Your task to perform on an android device: change the upload size in google photos Image 0: 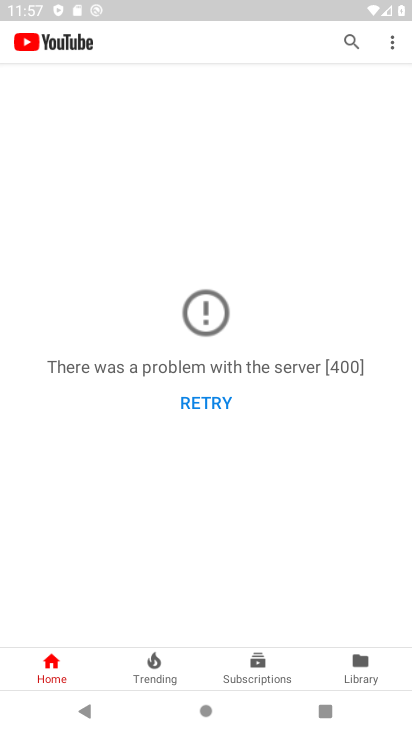
Step 0: press home button
Your task to perform on an android device: change the upload size in google photos Image 1: 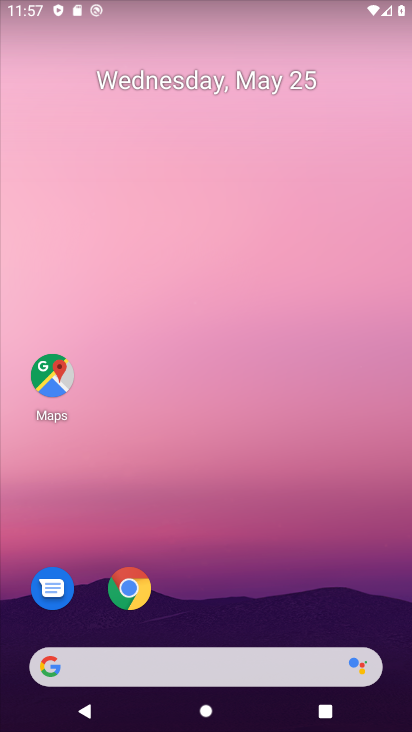
Step 1: drag from (142, 619) to (286, 81)
Your task to perform on an android device: change the upload size in google photos Image 2: 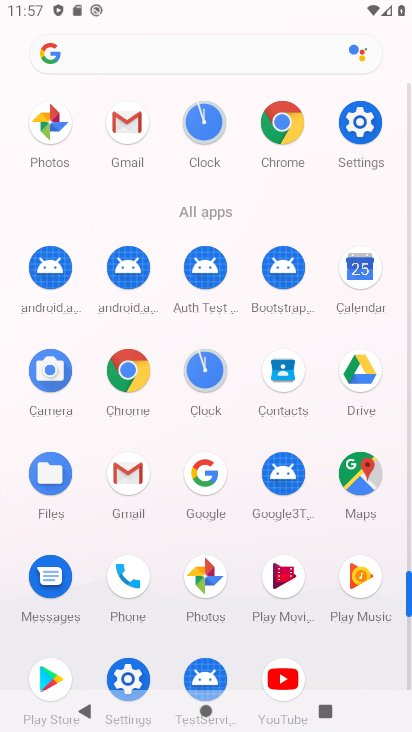
Step 2: click (199, 572)
Your task to perform on an android device: change the upload size in google photos Image 3: 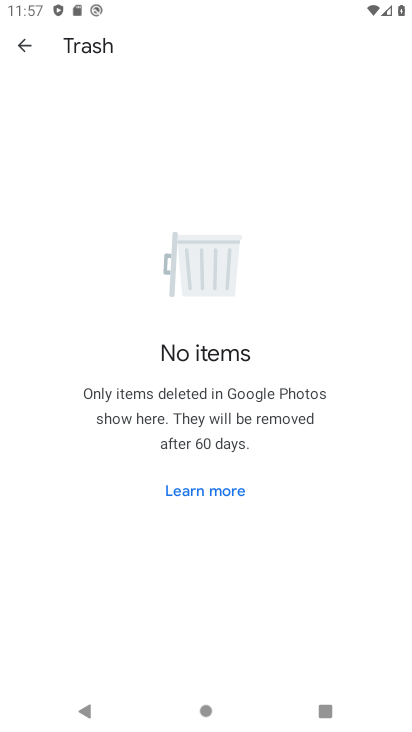
Step 3: click (30, 56)
Your task to perform on an android device: change the upload size in google photos Image 4: 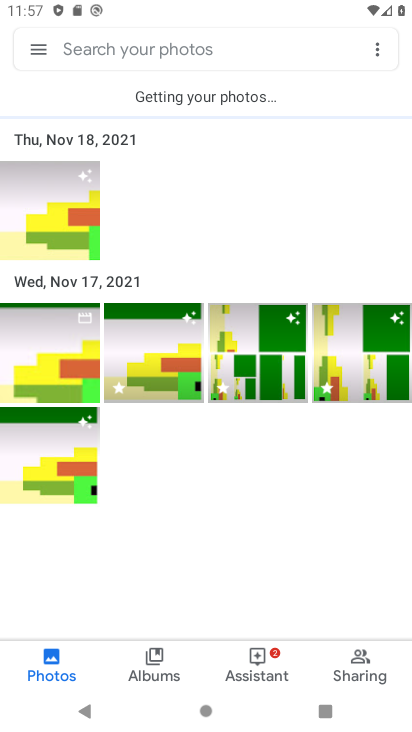
Step 4: click (39, 55)
Your task to perform on an android device: change the upload size in google photos Image 5: 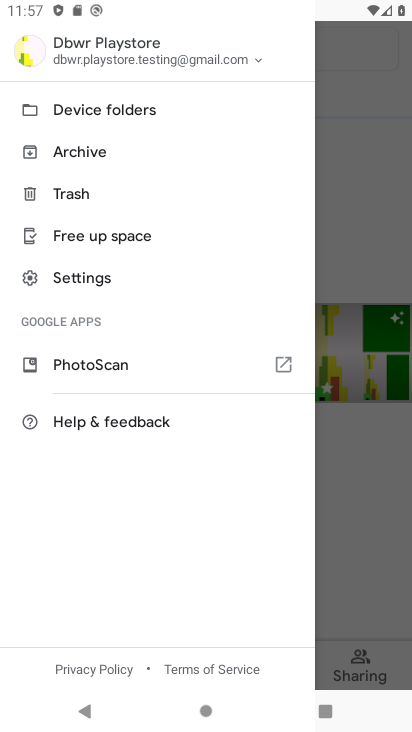
Step 5: click (122, 290)
Your task to perform on an android device: change the upload size in google photos Image 6: 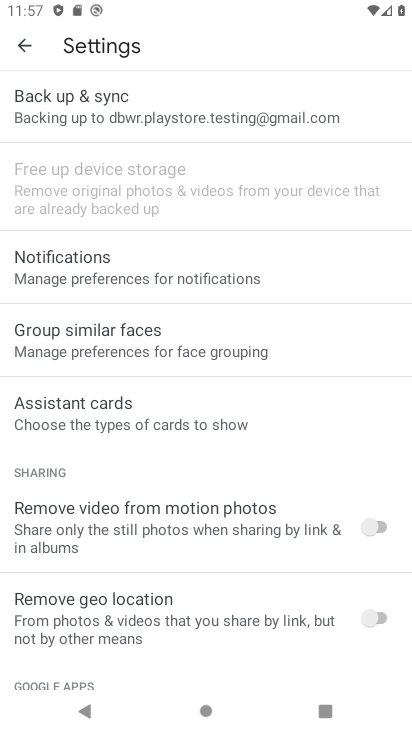
Step 6: click (170, 120)
Your task to perform on an android device: change the upload size in google photos Image 7: 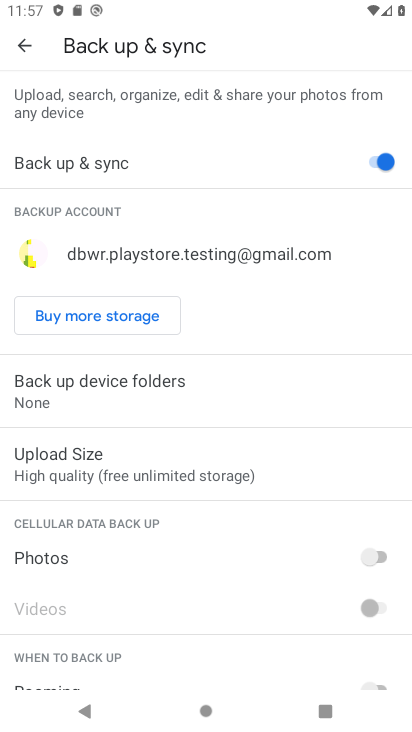
Step 7: click (204, 473)
Your task to perform on an android device: change the upload size in google photos Image 8: 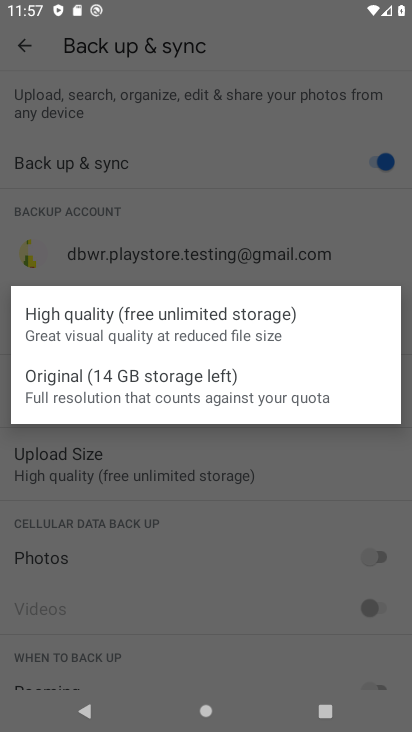
Step 8: click (212, 388)
Your task to perform on an android device: change the upload size in google photos Image 9: 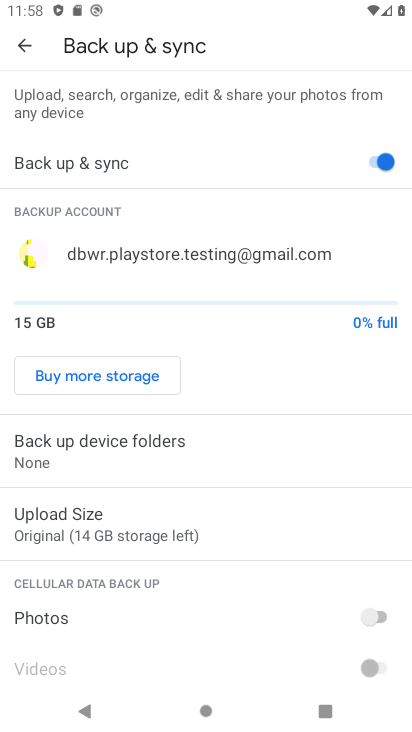
Step 9: task complete